Your task to perform on an android device: check out phone information Image 0: 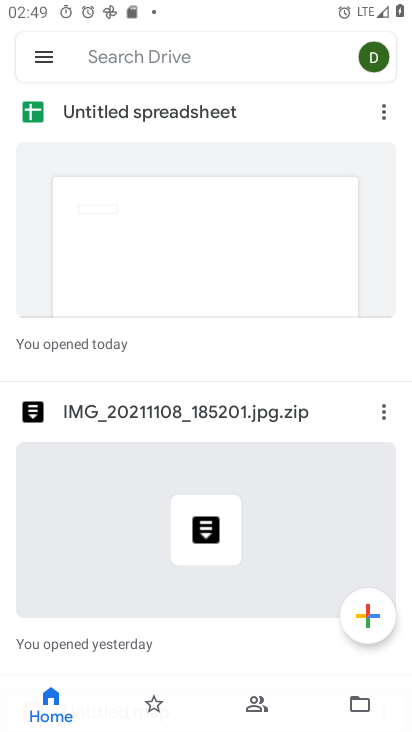
Step 0: press home button
Your task to perform on an android device: check out phone information Image 1: 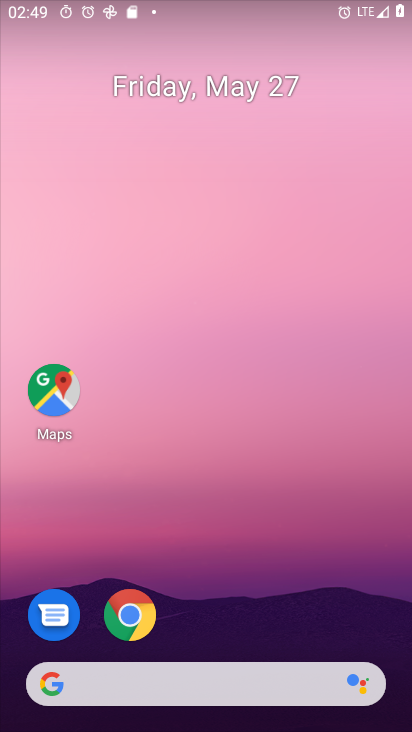
Step 1: drag from (324, 609) to (320, 295)
Your task to perform on an android device: check out phone information Image 2: 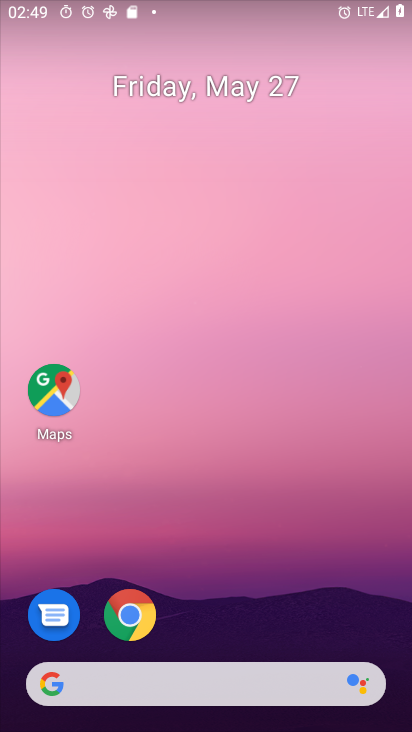
Step 2: drag from (314, 619) to (332, 254)
Your task to perform on an android device: check out phone information Image 3: 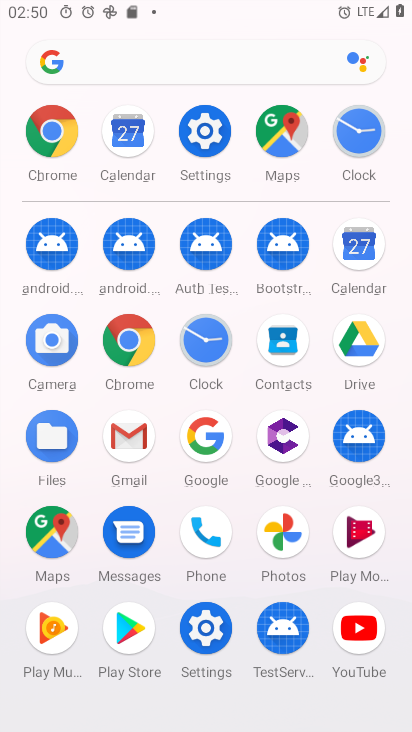
Step 3: click (208, 531)
Your task to perform on an android device: check out phone information Image 4: 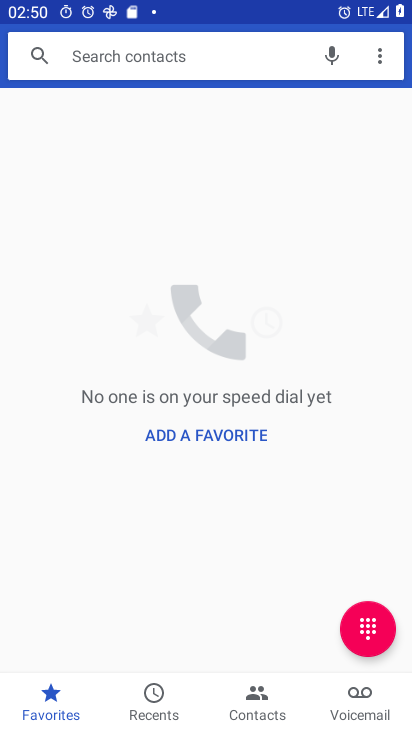
Step 4: click (162, 700)
Your task to perform on an android device: check out phone information Image 5: 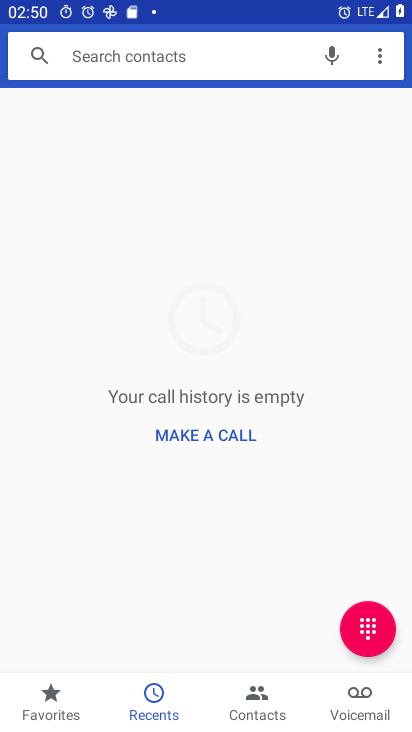
Step 5: task complete